Your task to perform on an android device: toggle priority inbox in the gmail app Image 0: 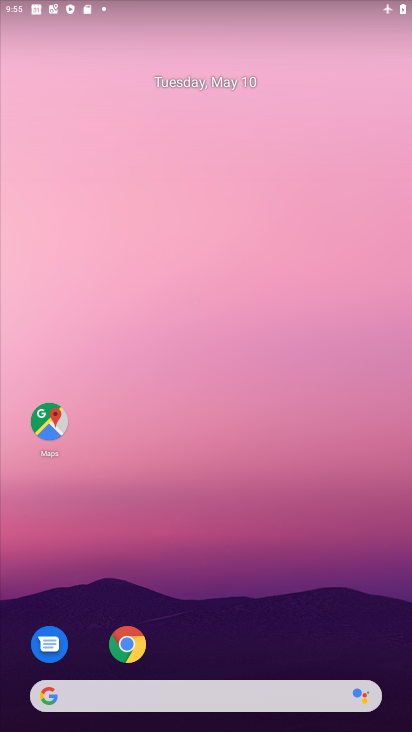
Step 0: drag from (264, 590) to (316, 208)
Your task to perform on an android device: toggle priority inbox in the gmail app Image 1: 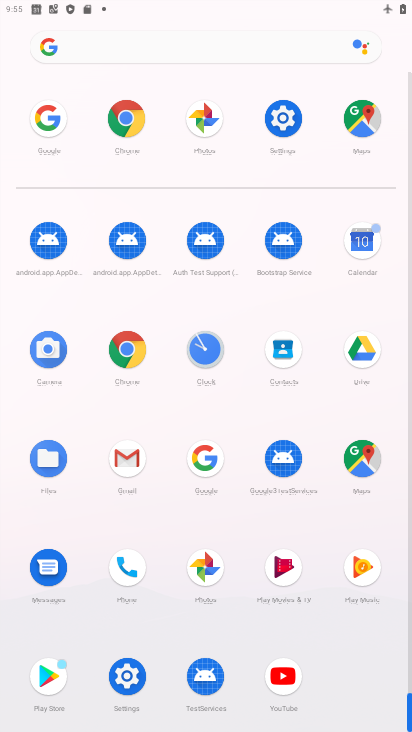
Step 1: click (120, 468)
Your task to perform on an android device: toggle priority inbox in the gmail app Image 2: 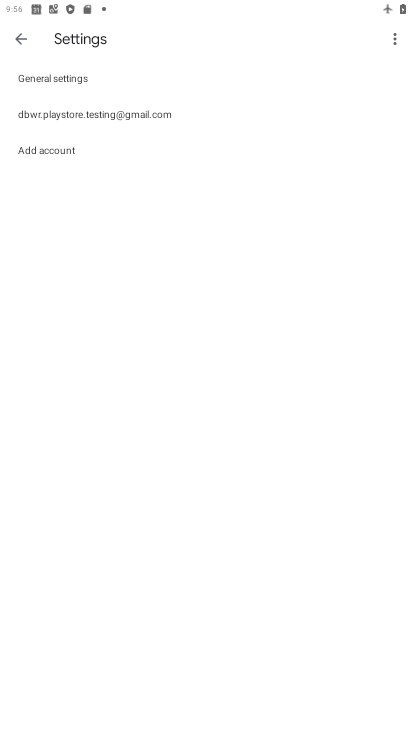
Step 2: click (99, 124)
Your task to perform on an android device: toggle priority inbox in the gmail app Image 3: 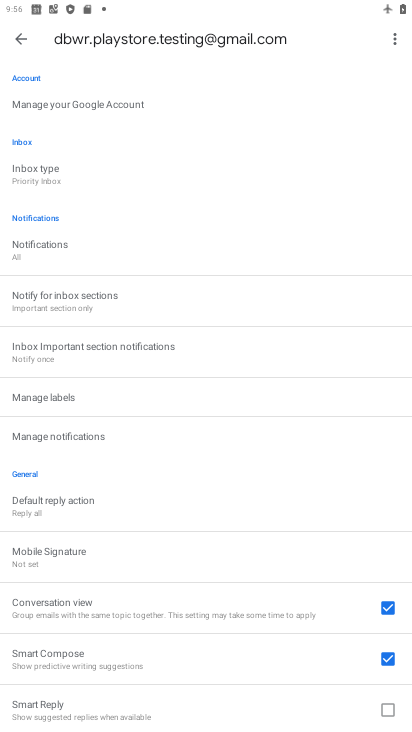
Step 3: click (80, 182)
Your task to perform on an android device: toggle priority inbox in the gmail app Image 4: 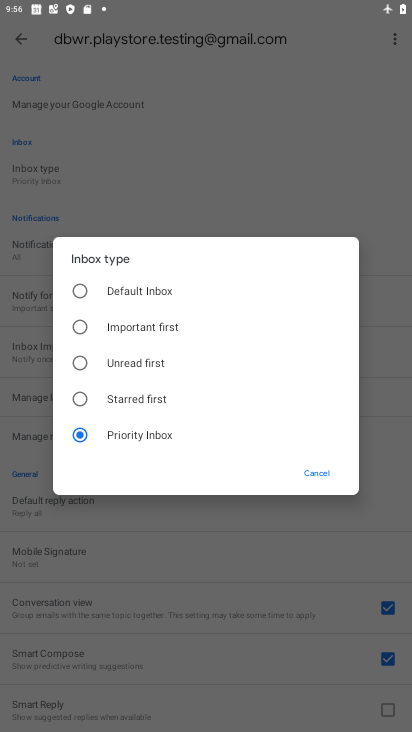
Step 4: click (82, 332)
Your task to perform on an android device: toggle priority inbox in the gmail app Image 5: 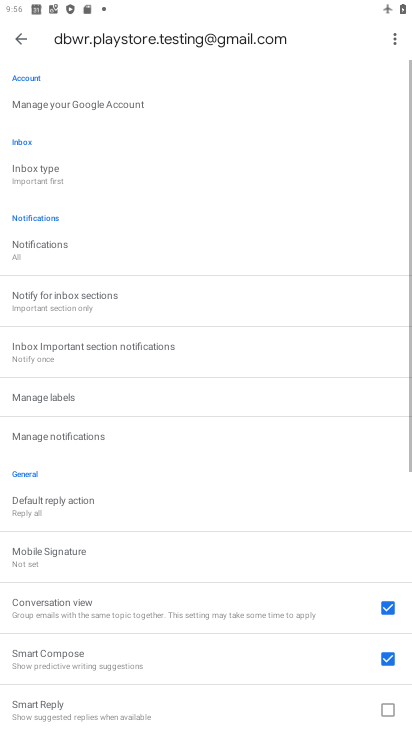
Step 5: task complete